Your task to perform on an android device: Open settings Image 0: 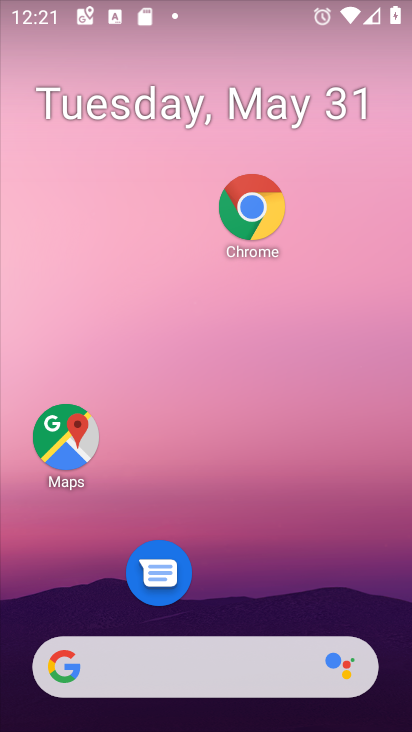
Step 0: drag from (262, 679) to (258, 114)
Your task to perform on an android device: Open settings Image 1: 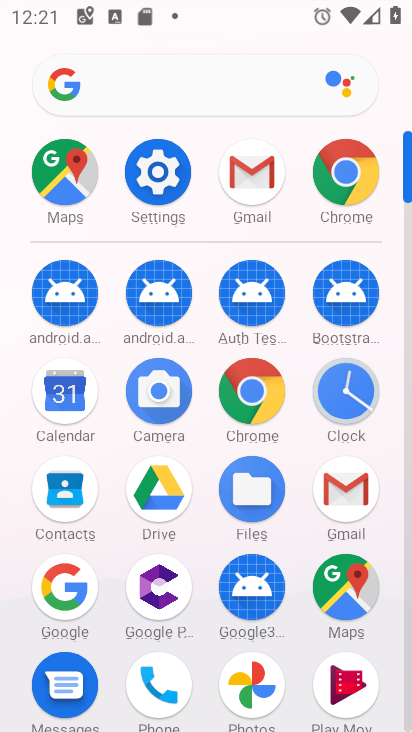
Step 1: click (151, 191)
Your task to perform on an android device: Open settings Image 2: 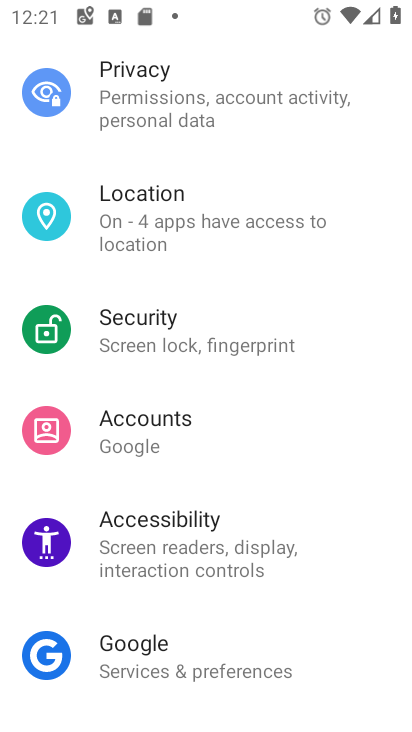
Step 2: task complete